Your task to perform on an android device: open a new tab in the chrome app Image 0: 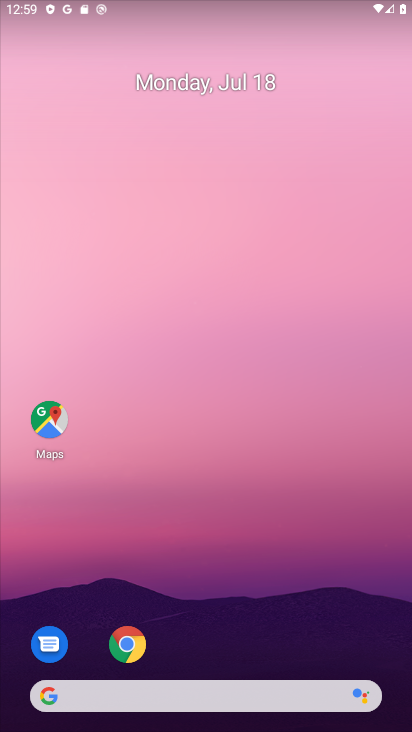
Step 0: drag from (265, 649) to (321, 55)
Your task to perform on an android device: open a new tab in the chrome app Image 1: 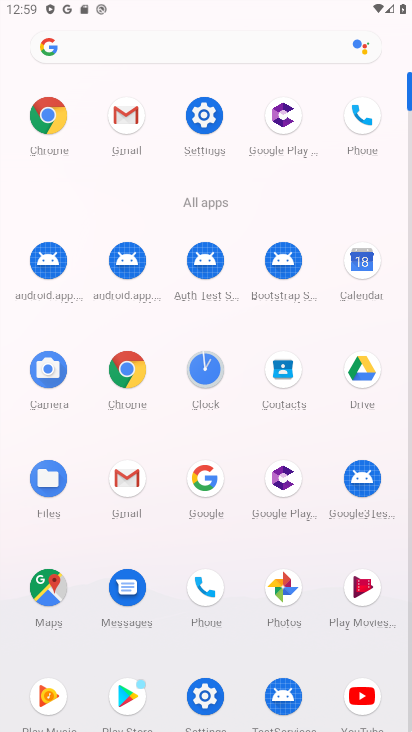
Step 1: click (138, 380)
Your task to perform on an android device: open a new tab in the chrome app Image 2: 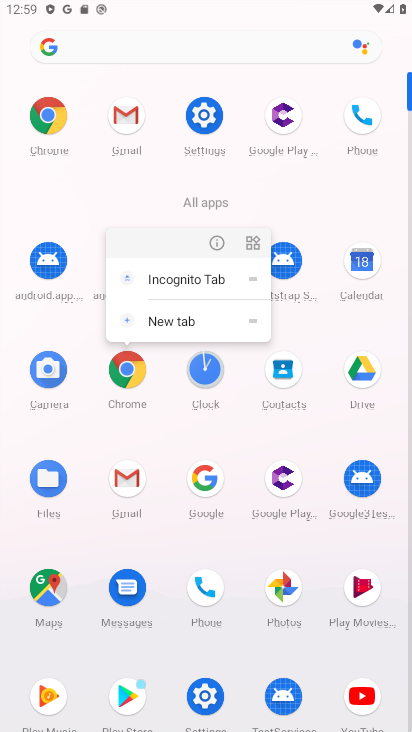
Step 2: click (138, 380)
Your task to perform on an android device: open a new tab in the chrome app Image 3: 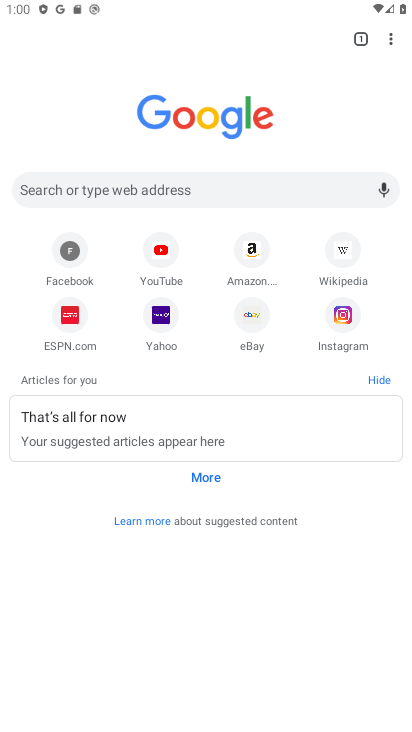
Step 3: task complete